Your task to perform on an android device: check data usage Image 0: 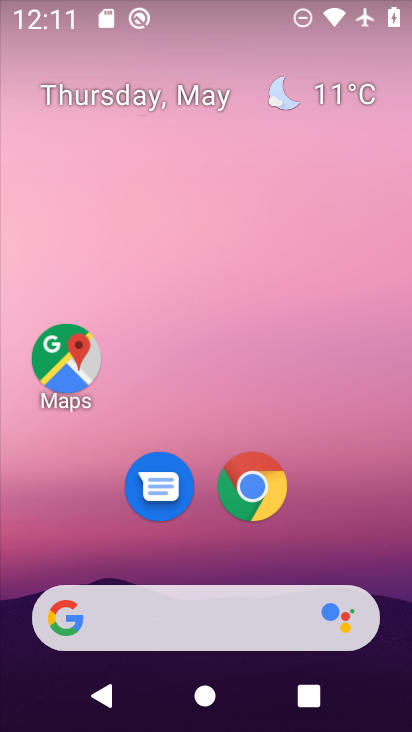
Step 0: drag from (379, 587) to (275, 76)
Your task to perform on an android device: check data usage Image 1: 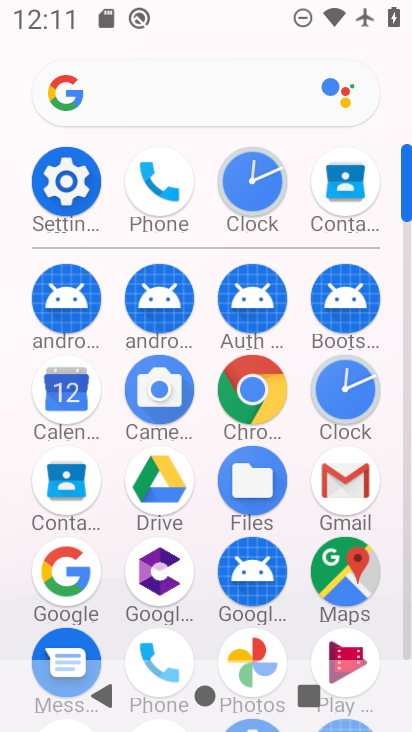
Step 1: click (66, 183)
Your task to perform on an android device: check data usage Image 2: 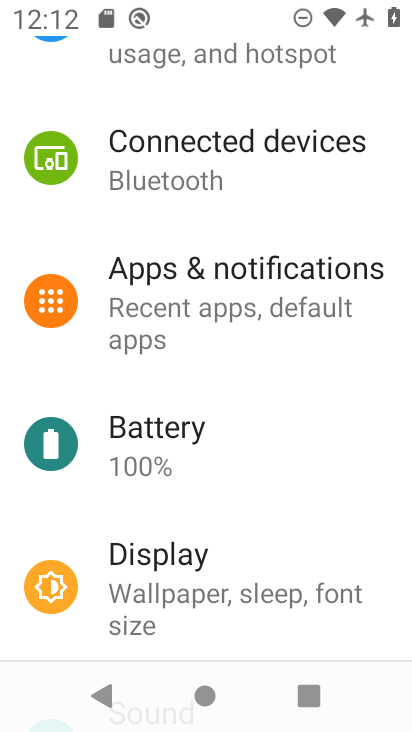
Step 2: drag from (269, 180) to (293, 541)
Your task to perform on an android device: check data usage Image 3: 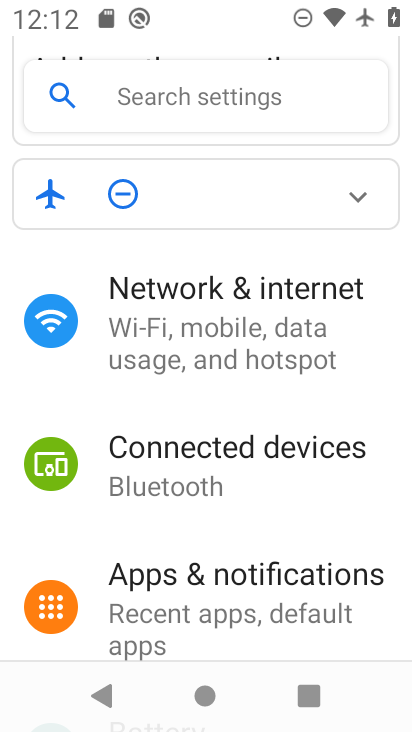
Step 3: click (257, 323)
Your task to perform on an android device: check data usage Image 4: 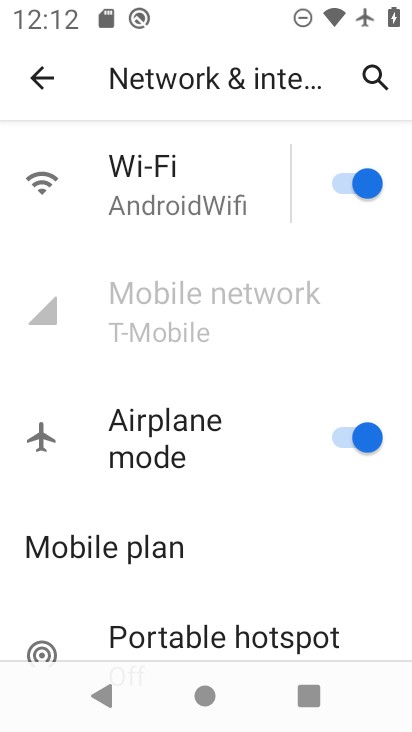
Step 4: task complete